Your task to perform on an android device: delete location history Image 0: 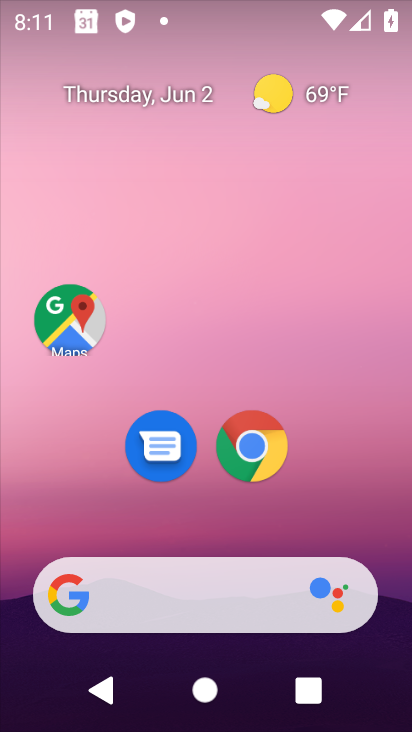
Step 0: drag from (194, 537) to (279, 62)
Your task to perform on an android device: delete location history Image 1: 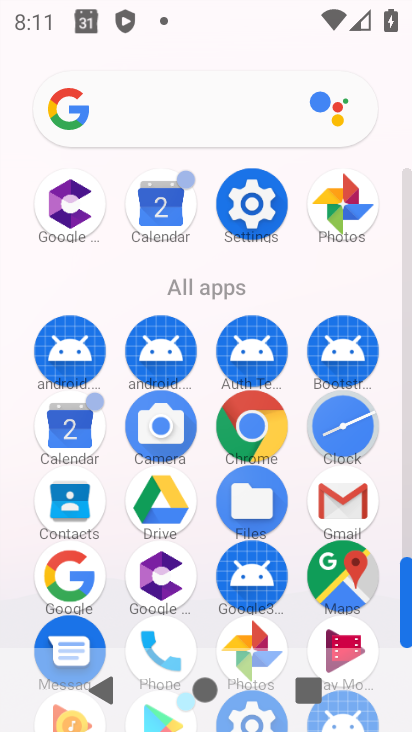
Step 1: click (248, 200)
Your task to perform on an android device: delete location history Image 2: 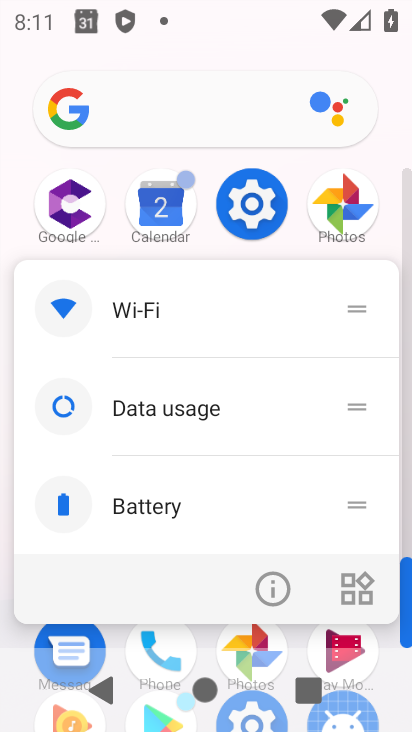
Step 2: click (255, 200)
Your task to perform on an android device: delete location history Image 3: 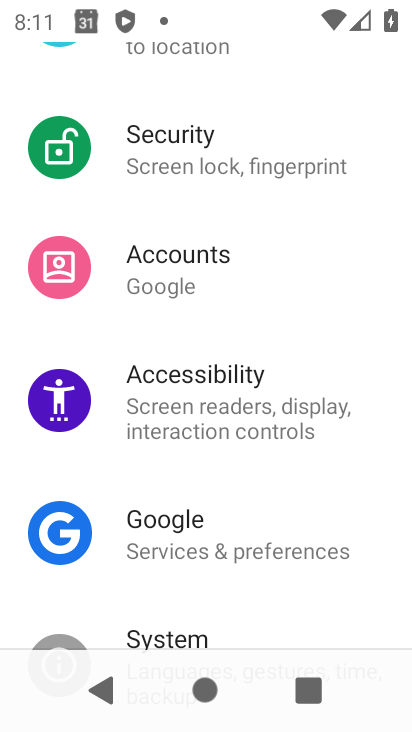
Step 3: drag from (240, 188) to (190, 538)
Your task to perform on an android device: delete location history Image 4: 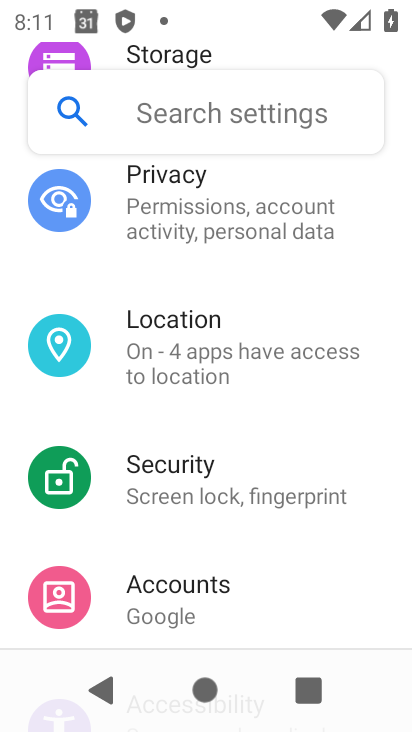
Step 4: click (186, 331)
Your task to perform on an android device: delete location history Image 5: 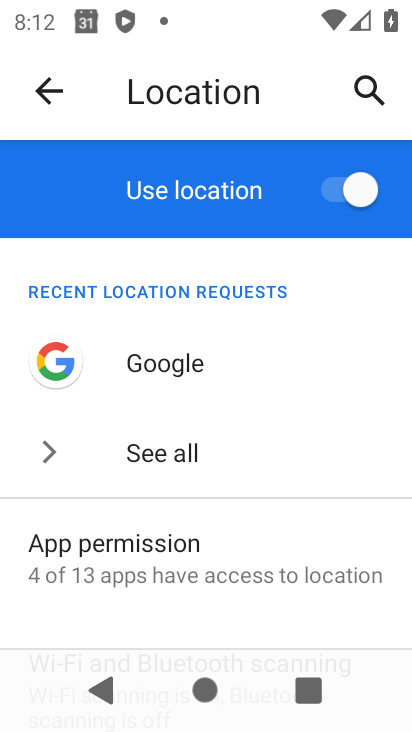
Step 5: drag from (215, 563) to (216, 230)
Your task to perform on an android device: delete location history Image 6: 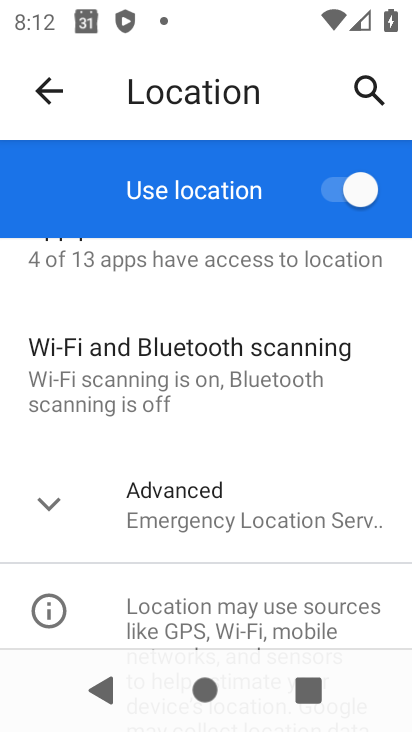
Step 6: click (166, 497)
Your task to perform on an android device: delete location history Image 7: 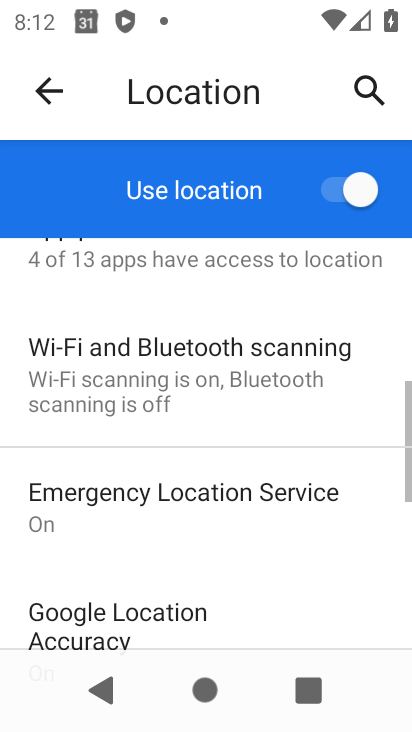
Step 7: drag from (140, 618) to (172, 286)
Your task to perform on an android device: delete location history Image 8: 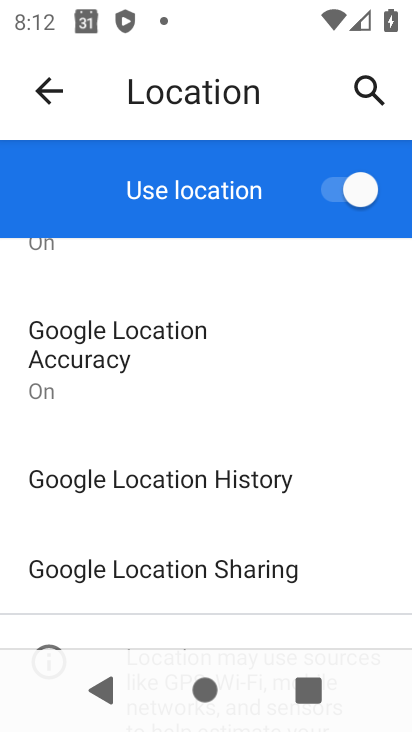
Step 8: press back button
Your task to perform on an android device: delete location history Image 9: 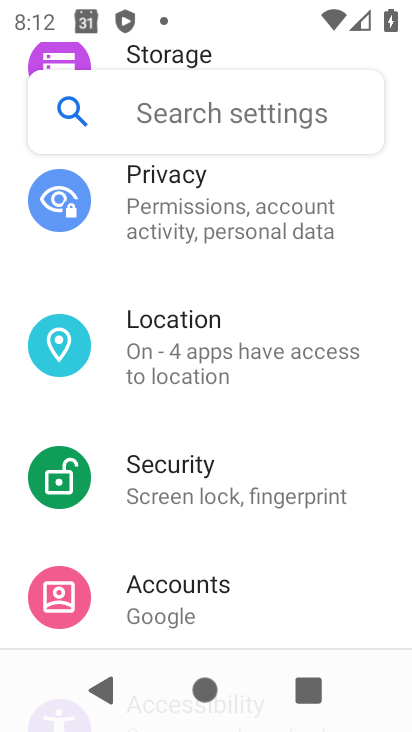
Step 9: press back button
Your task to perform on an android device: delete location history Image 10: 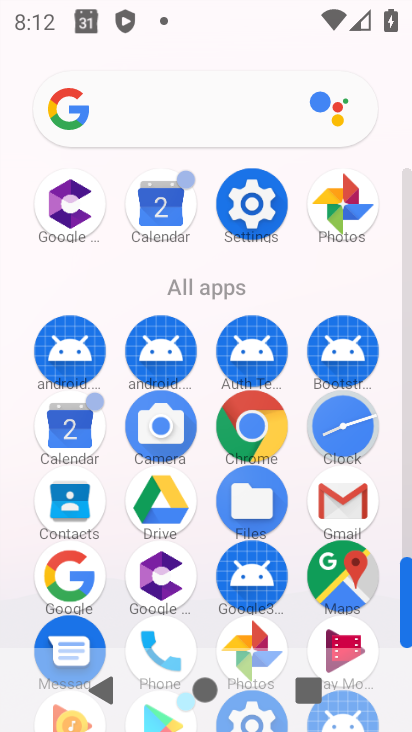
Step 10: press back button
Your task to perform on an android device: delete location history Image 11: 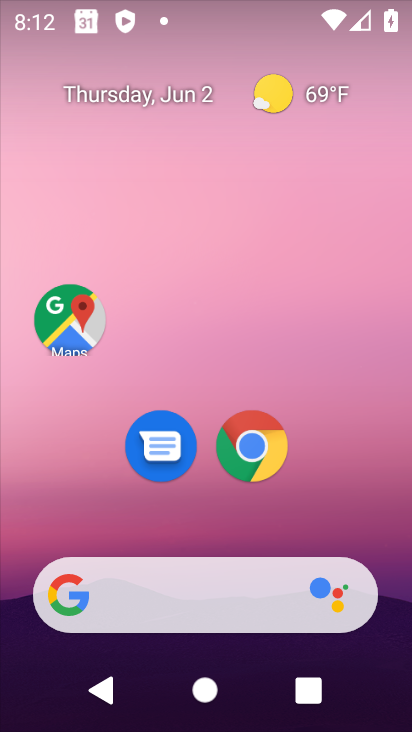
Step 11: click (70, 333)
Your task to perform on an android device: delete location history Image 12: 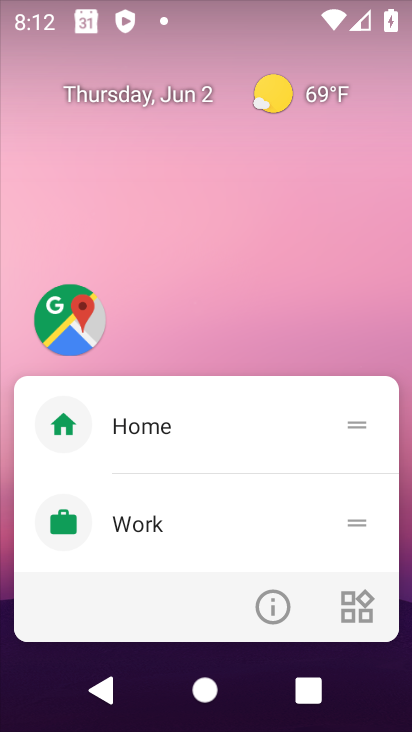
Step 12: click (63, 319)
Your task to perform on an android device: delete location history Image 13: 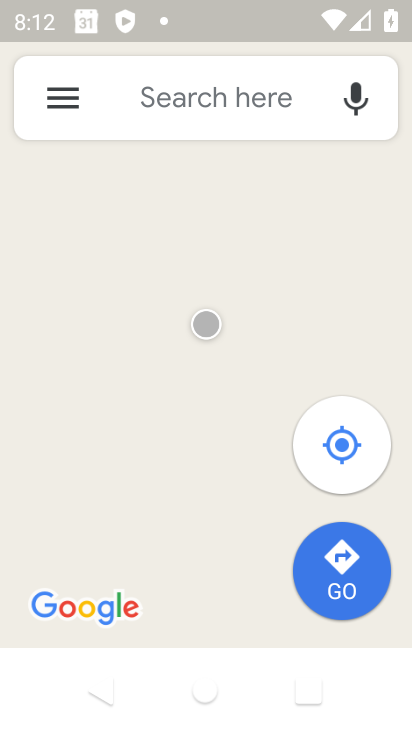
Step 13: click (45, 91)
Your task to perform on an android device: delete location history Image 14: 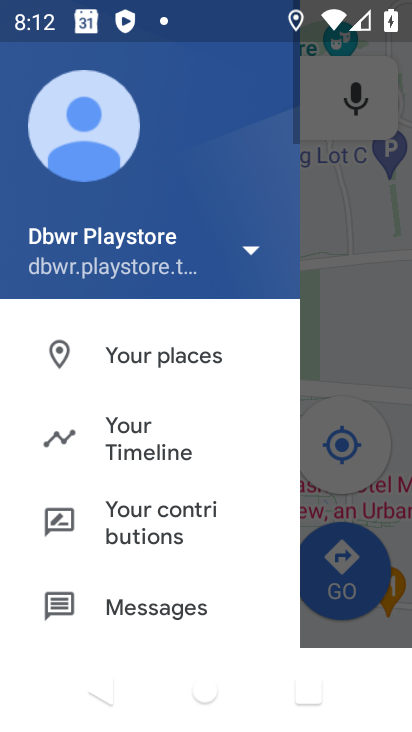
Step 14: click (103, 448)
Your task to perform on an android device: delete location history Image 15: 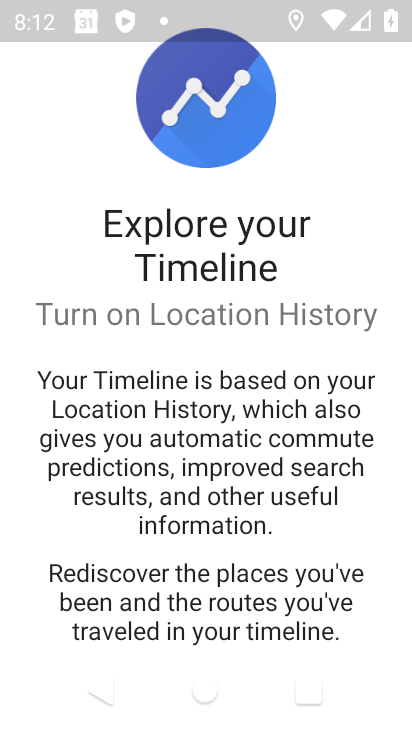
Step 15: drag from (135, 549) to (251, 133)
Your task to perform on an android device: delete location history Image 16: 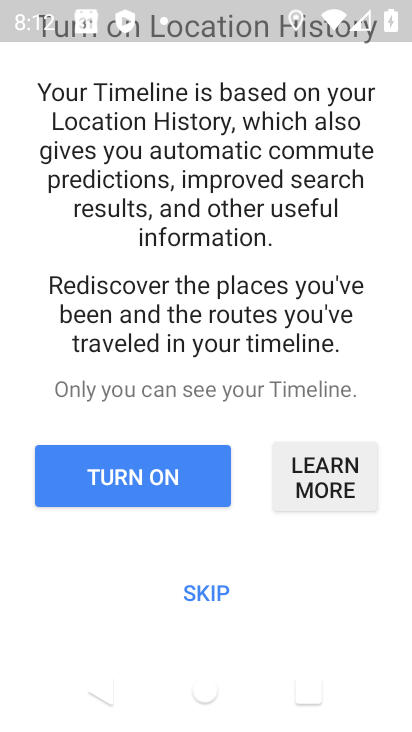
Step 16: click (198, 598)
Your task to perform on an android device: delete location history Image 17: 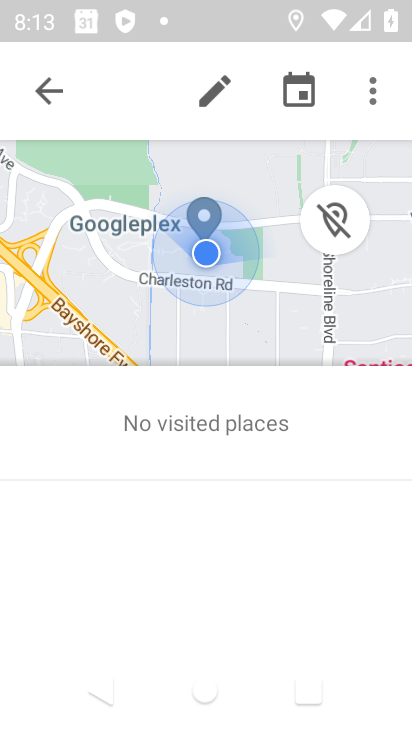
Step 17: click (366, 84)
Your task to perform on an android device: delete location history Image 18: 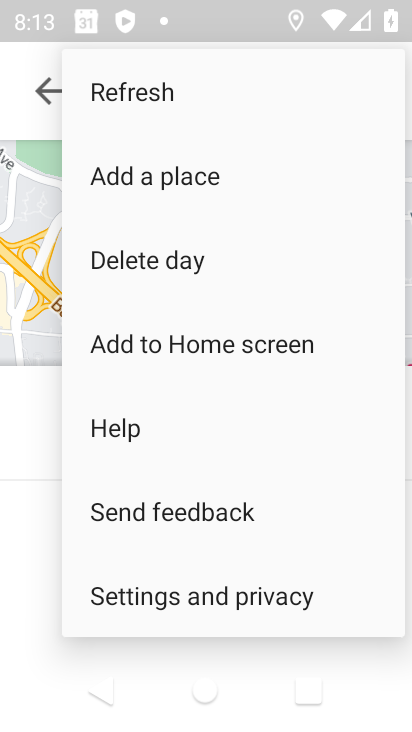
Step 18: click (160, 596)
Your task to perform on an android device: delete location history Image 19: 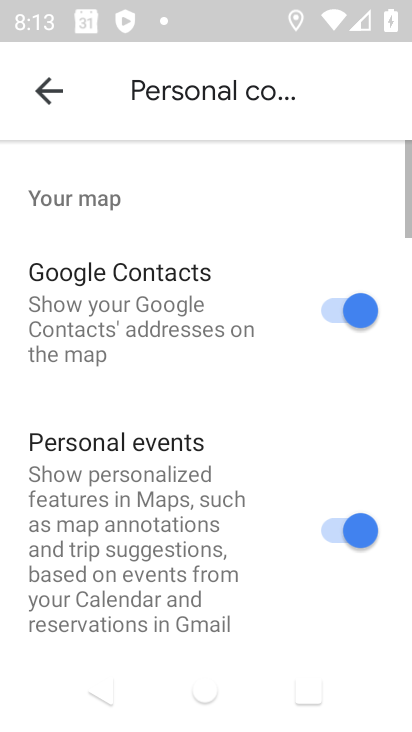
Step 19: drag from (155, 522) to (222, 67)
Your task to perform on an android device: delete location history Image 20: 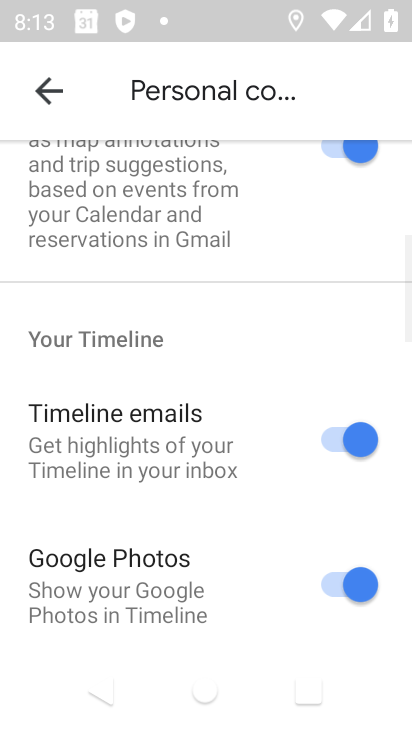
Step 20: drag from (183, 540) to (243, 75)
Your task to perform on an android device: delete location history Image 21: 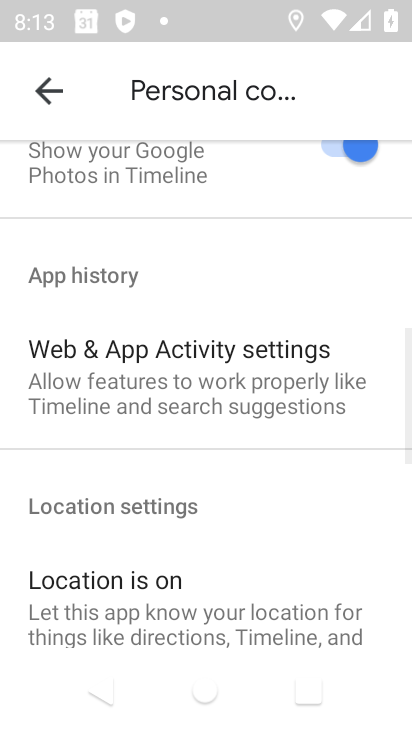
Step 21: drag from (198, 573) to (272, 58)
Your task to perform on an android device: delete location history Image 22: 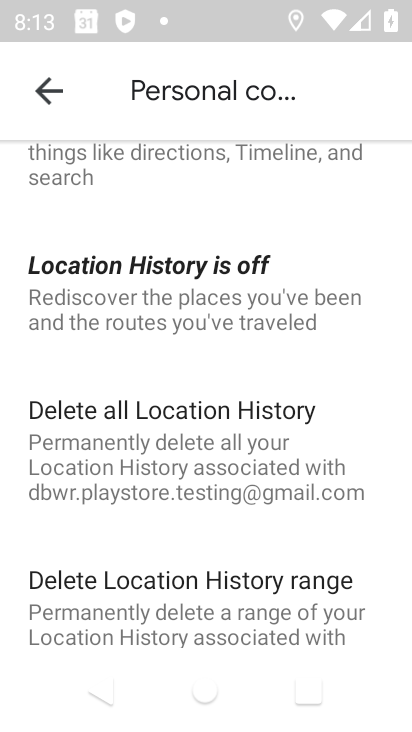
Step 22: click (155, 446)
Your task to perform on an android device: delete location history Image 23: 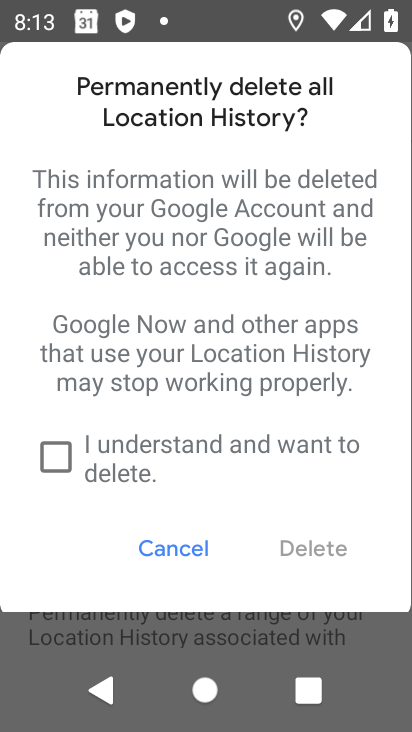
Step 23: click (51, 442)
Your task to perform on an android device: delete location history Image 24: 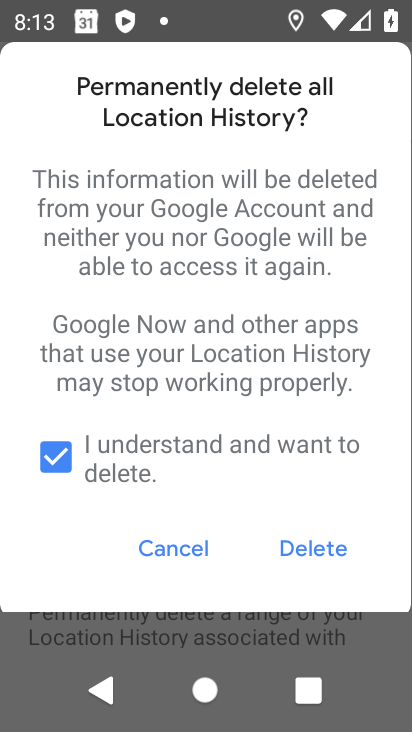
Step 24: click (315, 537)
Your task to perform on an android device: delete location history Image 25: 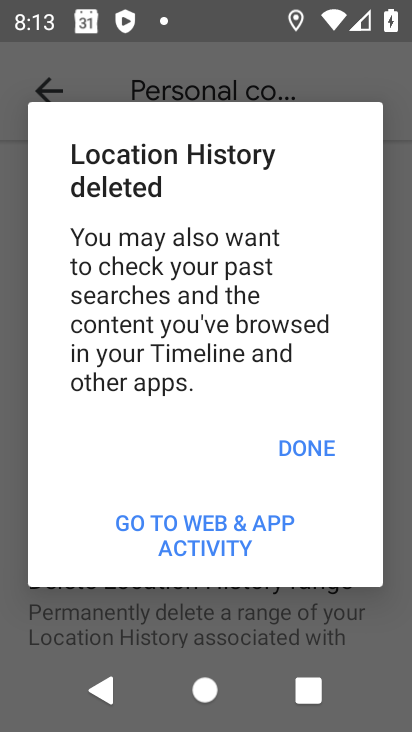
Step 25: click (290, 454)
Your task to perform on an android device: delete location history Image 26: 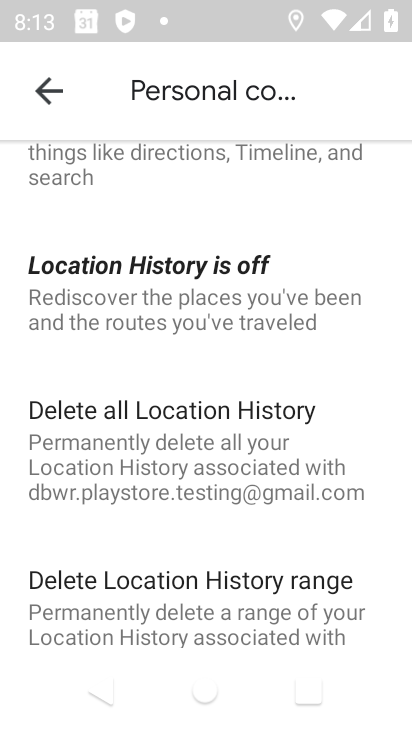
Step 26: task complete